Your task to perform on an android device: Open eBay Image 0: 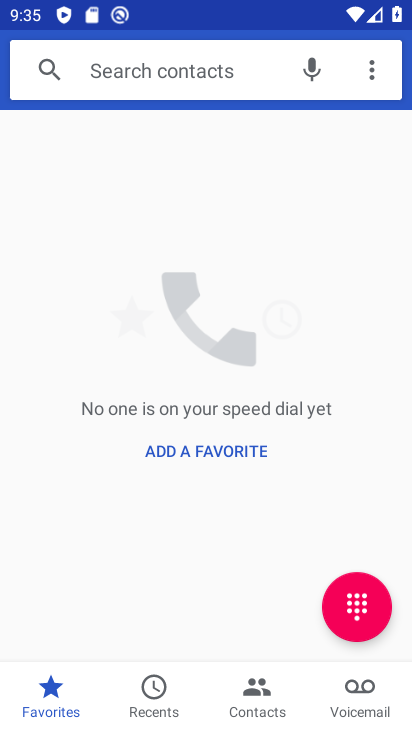
Step 0: press home button
Your task to perform on an android device: Open eBay Image 1: 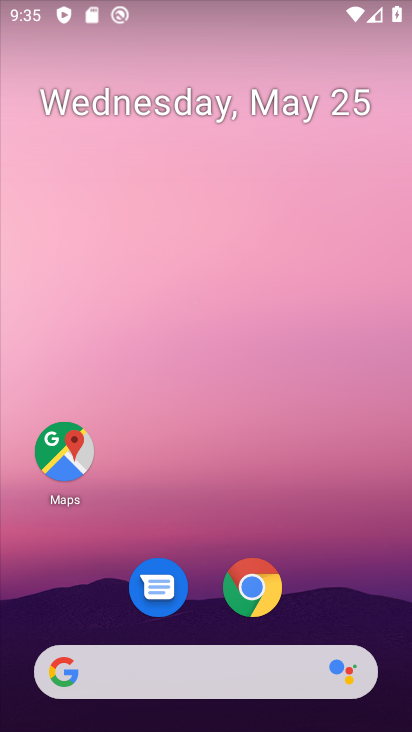
Step 1: click (261, 587)
Your task to perform on an android device: Open eBay Image 2: 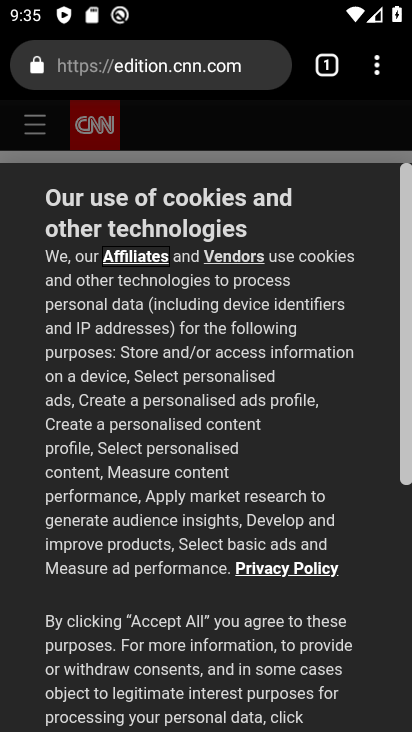
Step 2: click (171, 67)
Your task to perform on an android device: Open eBay Image 3: 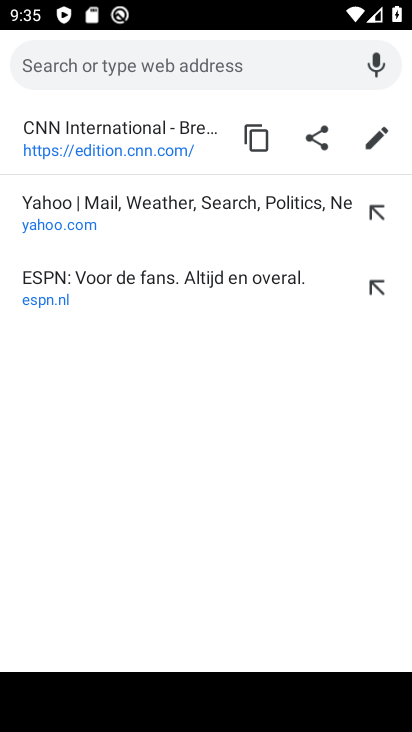
Step 3: type "eBay"
Your task to perform on an android device: Open eBay Image 4: 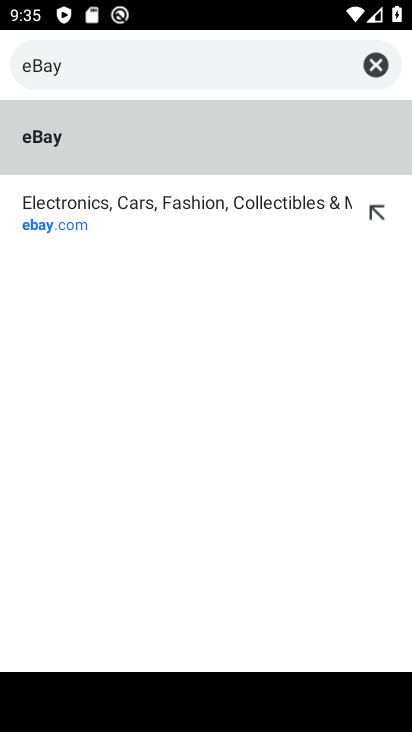
Step 4: click (69, 148)
Your task to perform on an android device: Open eBay Image 5: 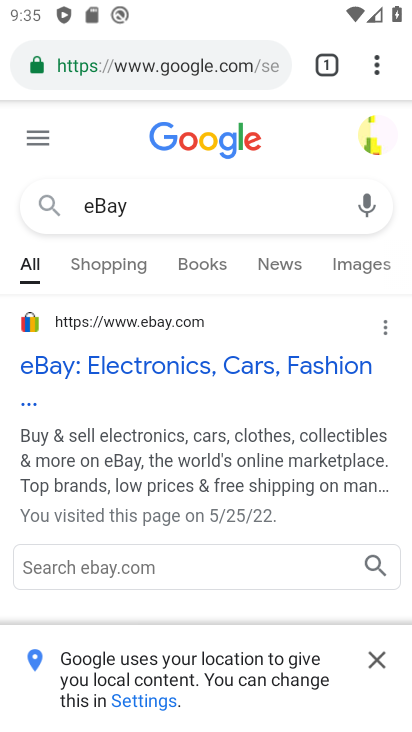
Step 5: click (375, 649)
Your task to perform on an android device: Open eBay Image 6: 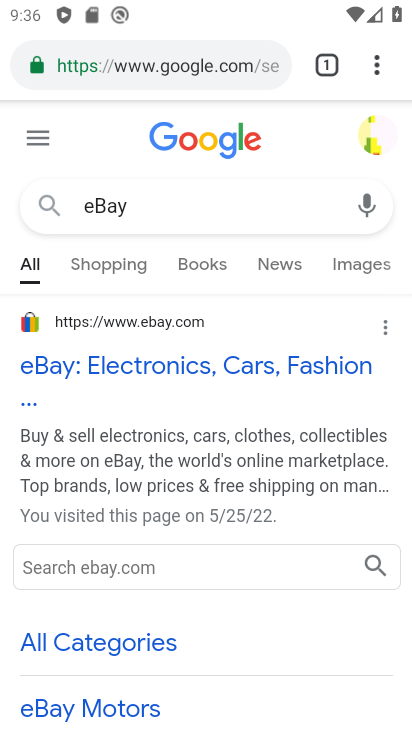
Step 6: task complete